Your task to perform on an android device: change text size in settings app Image 0: 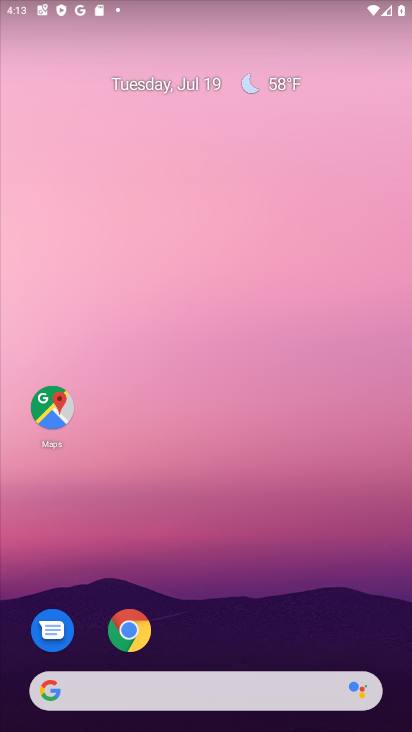
Step 0: press home button
Your task to perform on an android device: change text size in settings app Image 1: 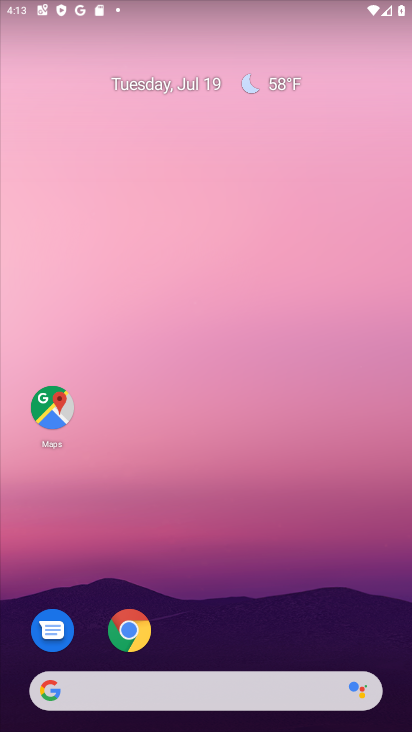
Step 1: drag from (309, 600) to (399, 283)
Your task to perform on an android device: change text size in settings app Image 2: 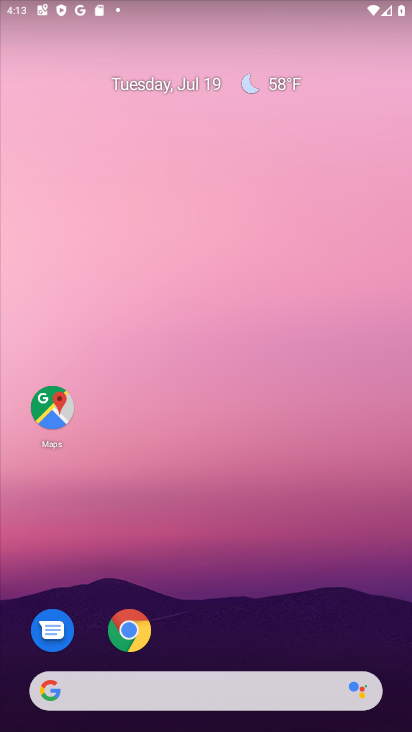
Step 2: drag from (242, 526) to (242, 98)
Your task to perform on an android device: change text size in settings app Image 3: 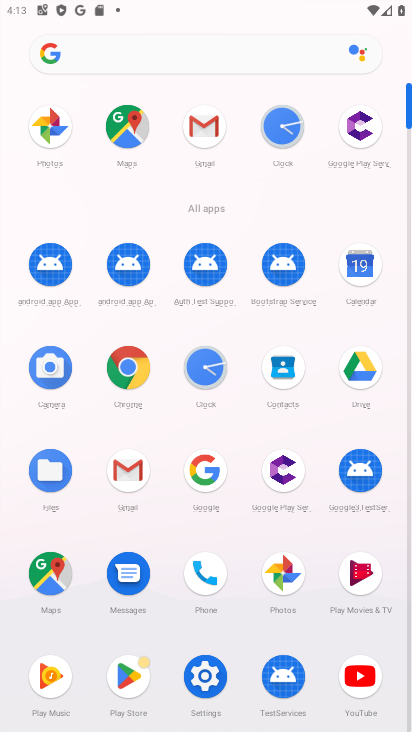
Step 3: click (205, 670)
Your task to perform on an android device: change text size in settings app Image 4: 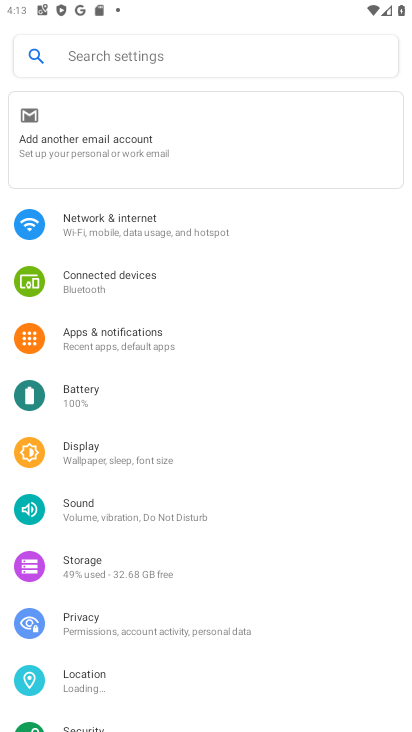
Step 4: click (82, 462)
Your task to perform on an android device: change text size in settings app Image 5: 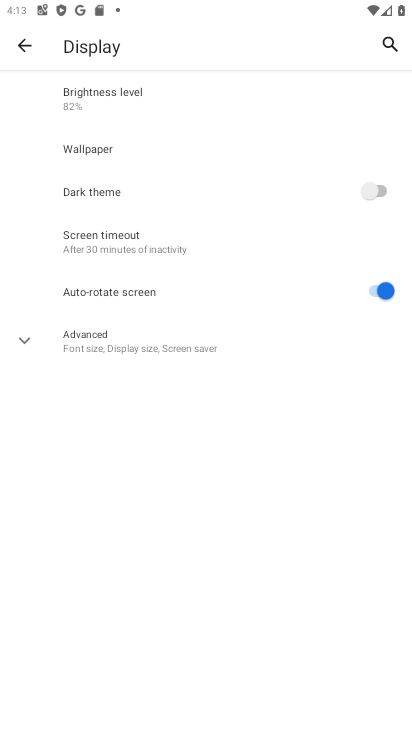
Step 5: click (85, 331)
Your task to perform on an android device: change text size in settings app Image 6: 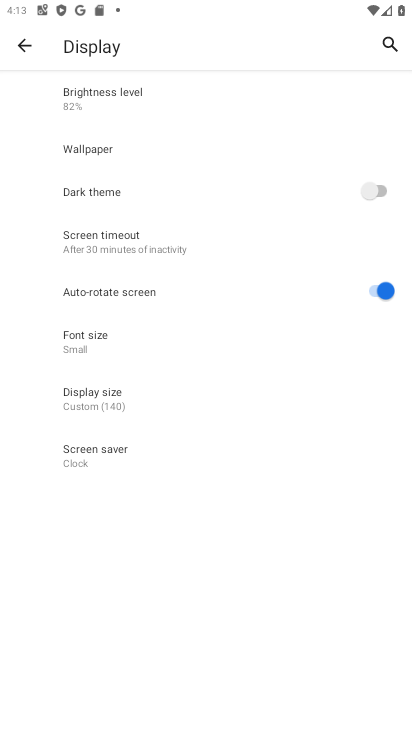
Step 6: click (96, 336)
Your task to perform on an android device: change text size in settings app Image 7: 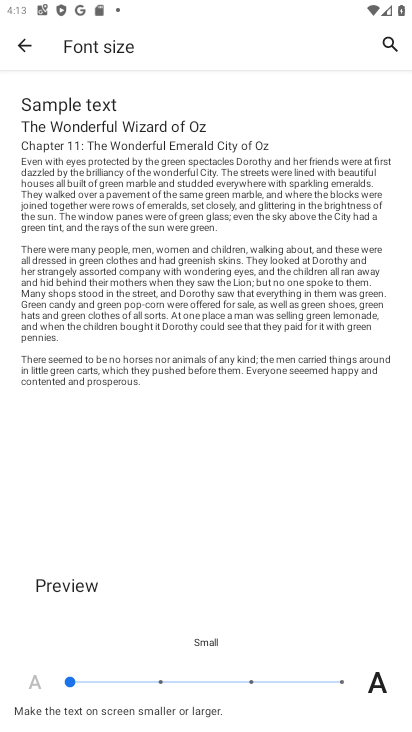
Step 7: click (246, 677)
Your task to perform on an android device: change text size in settings app Image 8: 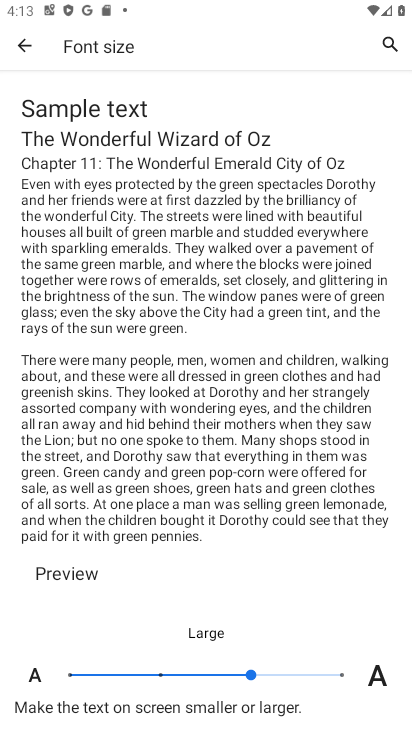
Step 8: click (345, 673)
Your task to perform on an android device: change text size in settings app Image 9: 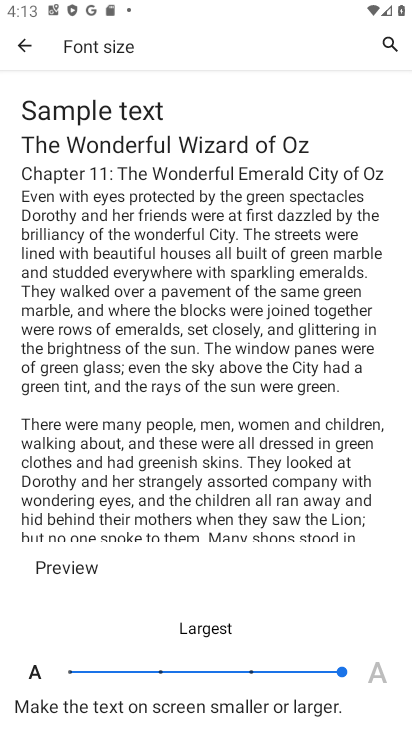
Step 9: task complete